Your task to perform on an android device: visit the assistant section in the google photos Image 0: 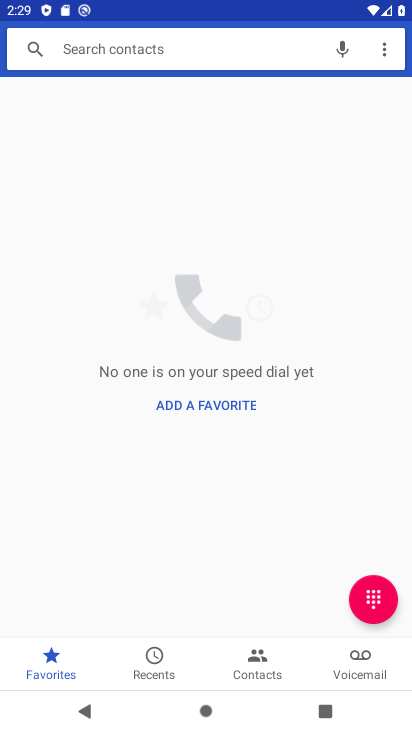
Step 0: press home button
Your task to perform on an android device: visit the assistant section in the google photos Image 1: 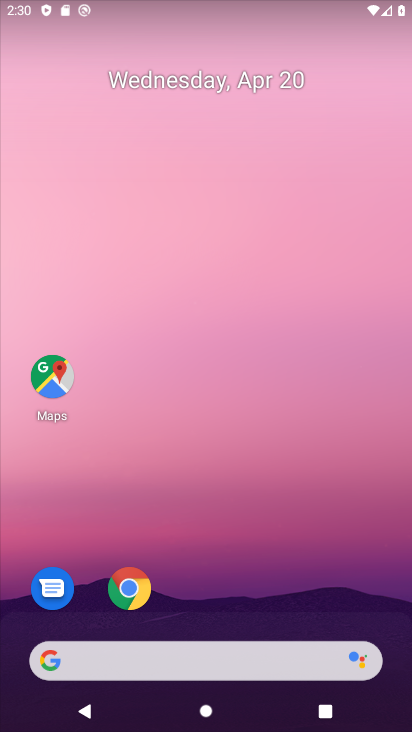
Step 1: drag from (317, 630) to (284, 5)
Your task to perform on an android device: visit the assistant section in the google photos Image 2: 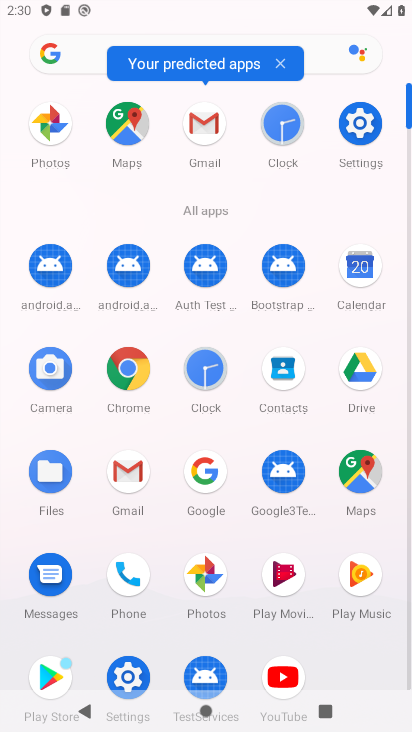
Step 2: click (203, 577)
Your task to perform on an android device: visit the assistant section in the google photos Image 3: 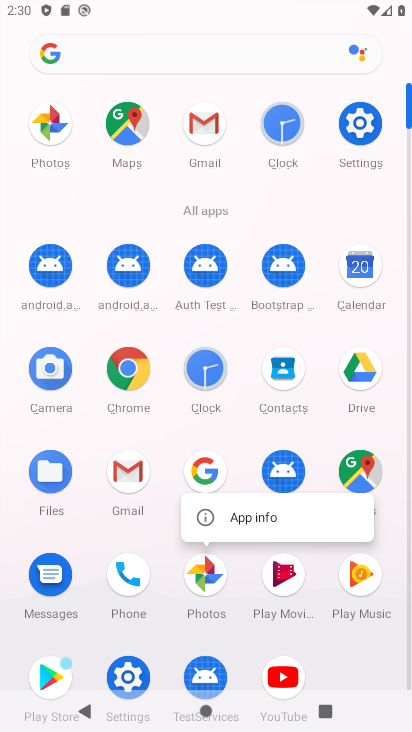
Step 3: click (203, 577)
Your task to perform on an android device: visit the assistant section in the google photos Image 4: 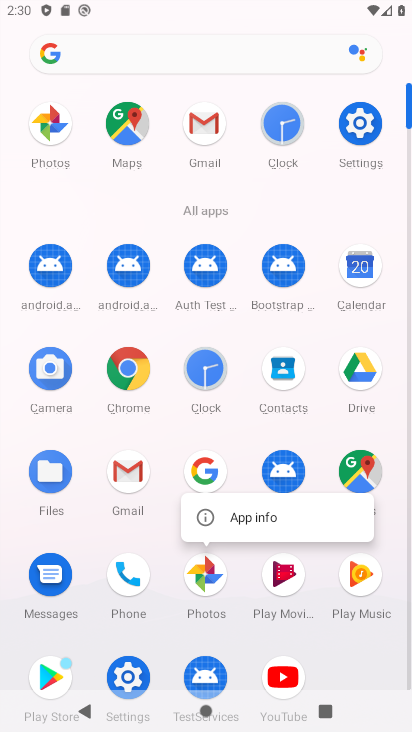
Step 4: click (203, 577)
Your task to perform on an android device: visit the assistant section in the google photos Image 5: 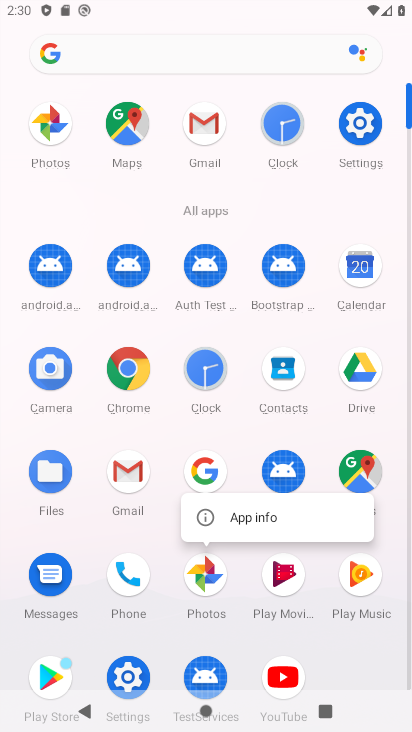
Step 5: click (203, 577)
Your task to perform on an android device: visit the assistant section in the google photos Image 6: 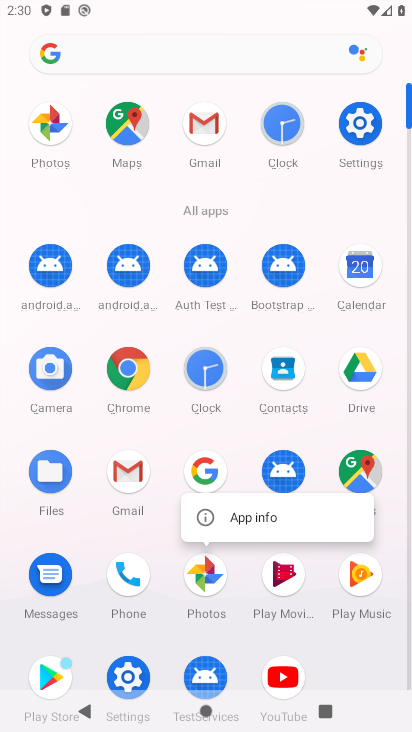
Step 6: click (203, 577)
Your task to perform on an android device: visit the assistant section in the google photos Image 7: 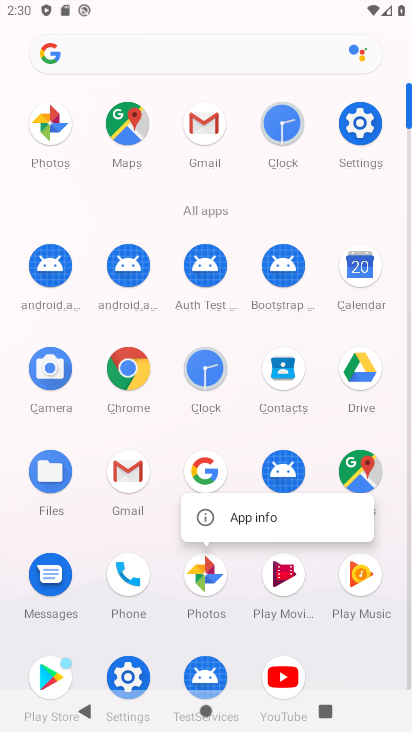
Step 7: click (210, 590)
Your task to perform on an android device: visit the assistant section in the google photos Image 8: 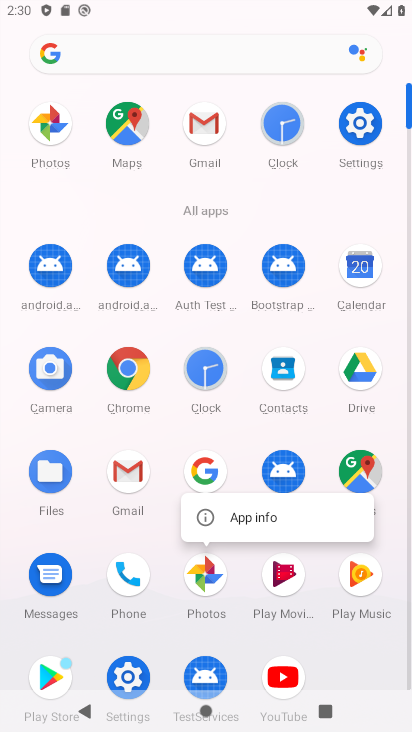
Step 8: click (198, 577)
Your task to perform on an android device: visit the assistant section in the google photos Image 9: 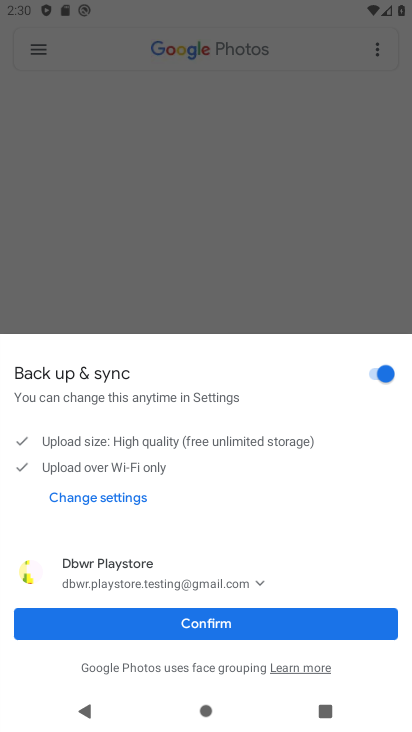
Step 9: click (255, 622)
Your task to perform on an android device: visit the assistant section in the google photos Image 10: 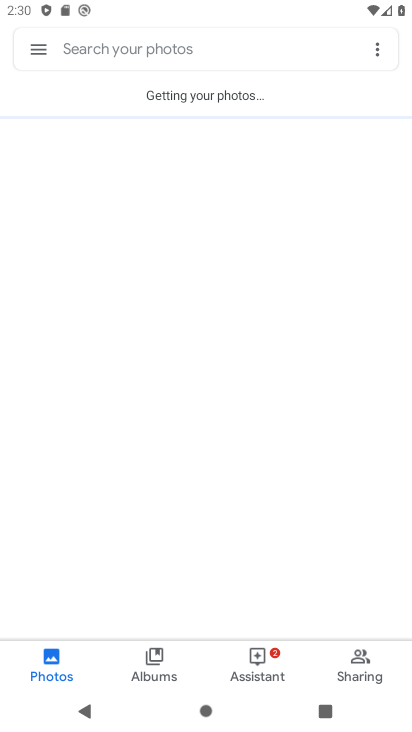
Step 10: click (256, 656)
Your task to perform on an android device: visit the assistant section in the google photos Image 11: 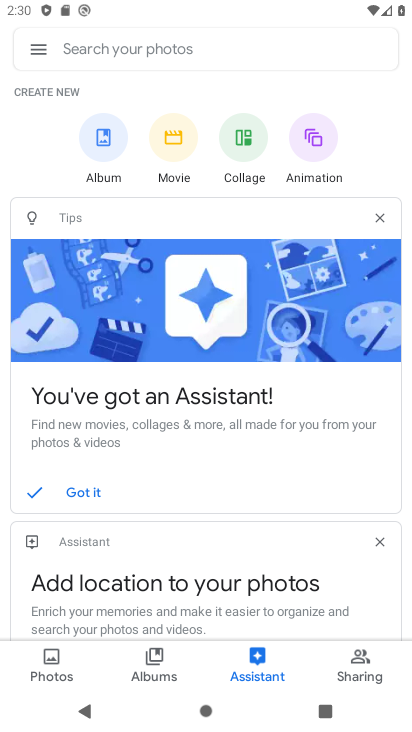
Step 11: task complete